Your task to perform on an android device: change the clock display to show seconds Image 0: 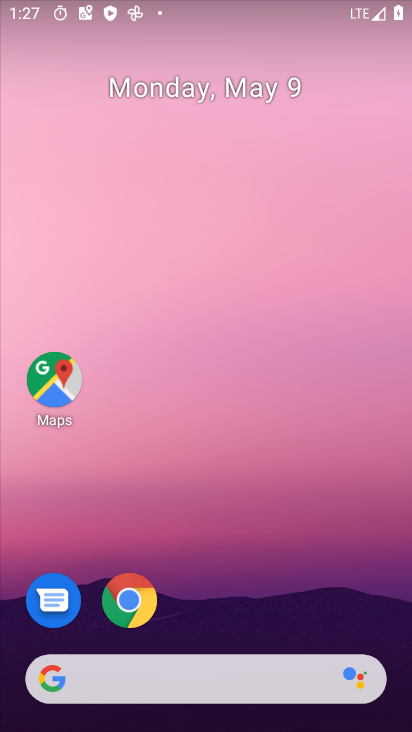
Step 0: drag from (249, 582) to (266, 261)
Your task to perform on an android device: change the clock display to show seconds Image 1: 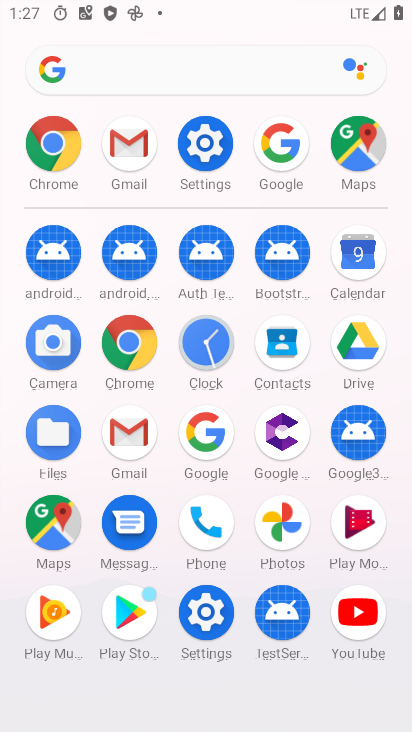
Step 1: click (203, 349)
Your task to perform on an android device: change the clock display to show seconds Image 2: 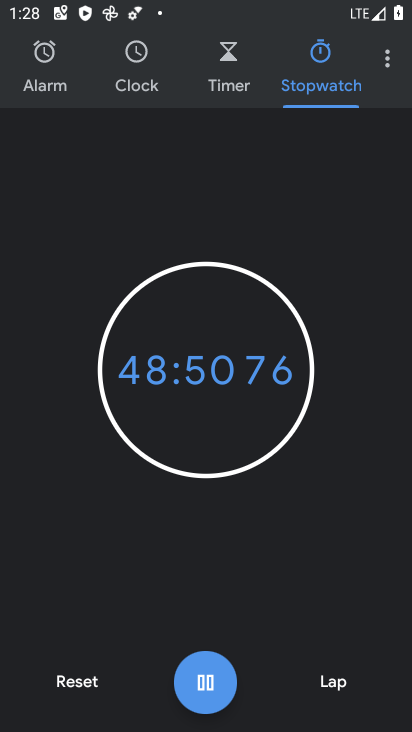
Step 2: click (382, 68)
Your task to perform on an android device: change the clock display to show seconds Image 3: 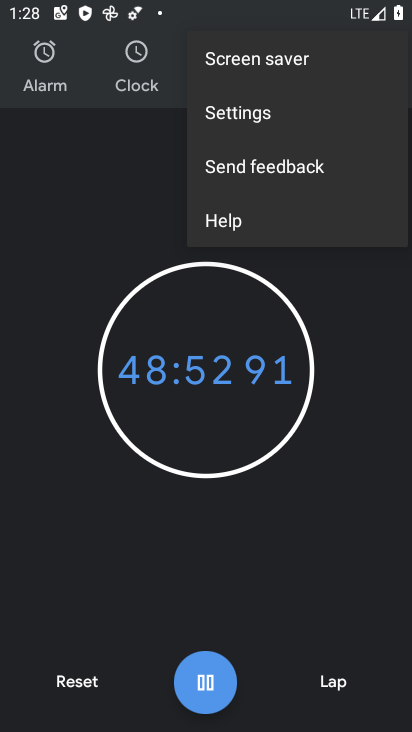
Step 3: click (279, 125)
Your task to perform on an android device: change the clock display to show seconds Image 4: 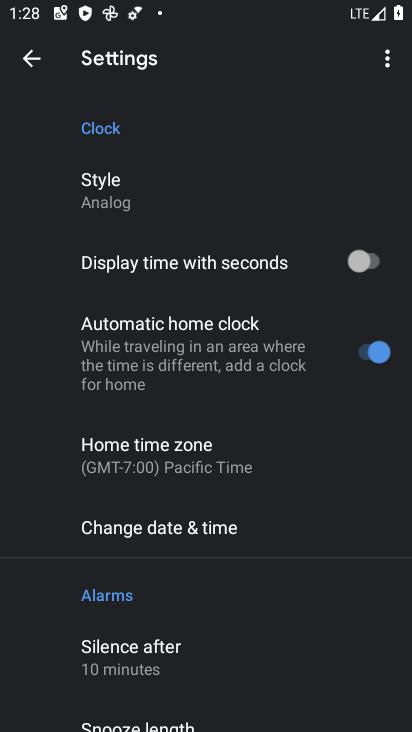
Step 4: click (360, 262)
Your task to perform on an android device: change the clock display to show seconds Image 5: 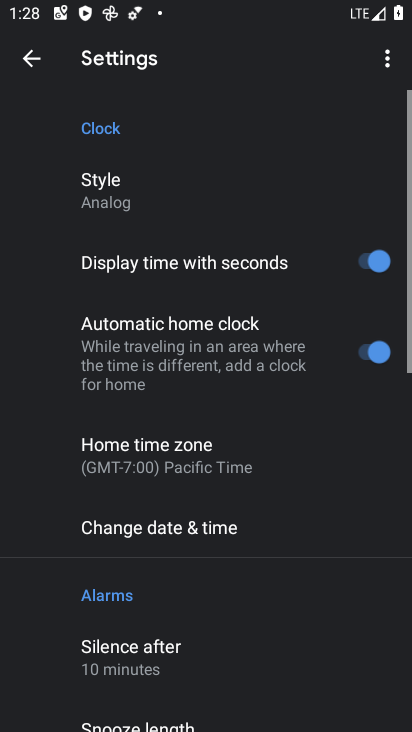
Step 5: task complete